Your task to perform on an android device: open app "Facebook Messenger" (install if not already installed) Image 0: 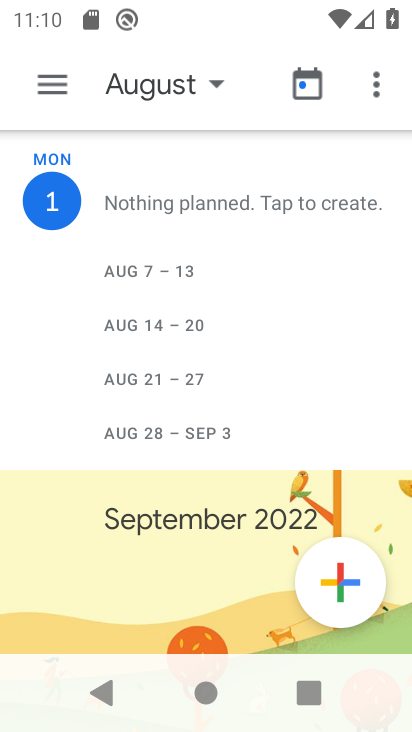
Step 0: press home button
Your task to perform on an android device: open app "Facebook Messenger" (install if not already installed) Image 1: 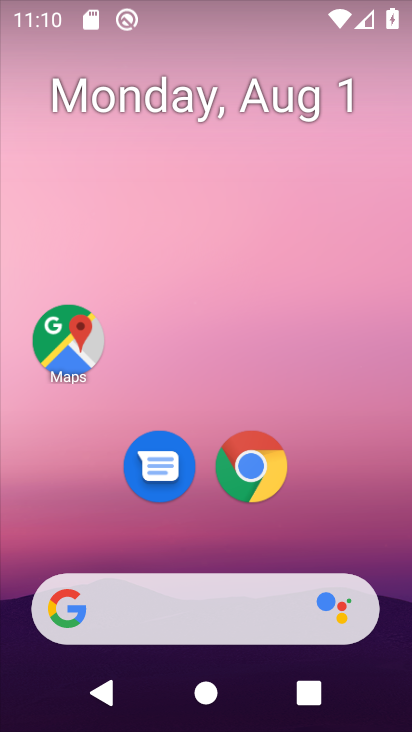
Step 1: drag from (237, 724) to (241, 14)
Your task to perform on an android device: open app "Facebook Messenger" (install if not already installed) Image 2: 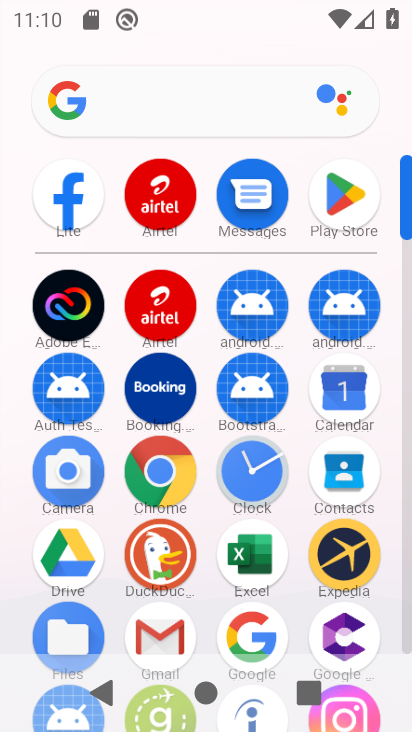
Step 2: click (345, 191)
Your task to perform on an android device: open app "Facebook Messenger" (install if not already installed) Image 3: 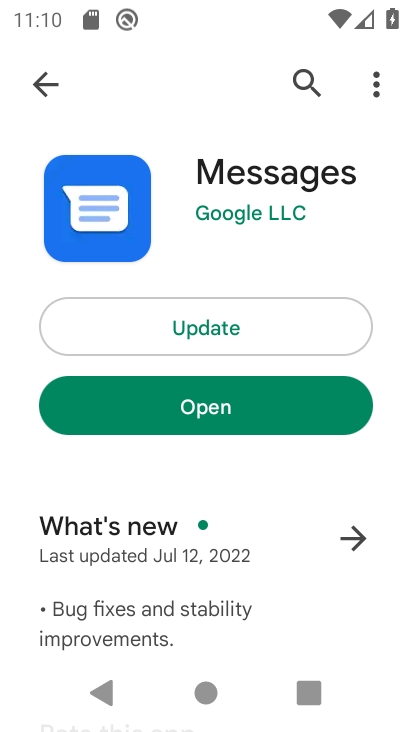
Step 3: click (305, 73)
Your task to perform on an android device: open app "Facebook Messenger" (install if not already installed) Image 4: 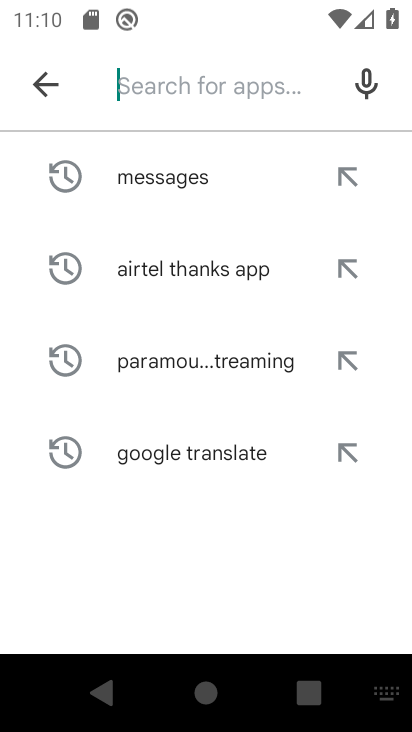
Step 4: type "Facebook Messenger"
Your task to perform on an android device: open app "Facebook Messenger" (install if not already installed) Image 5: 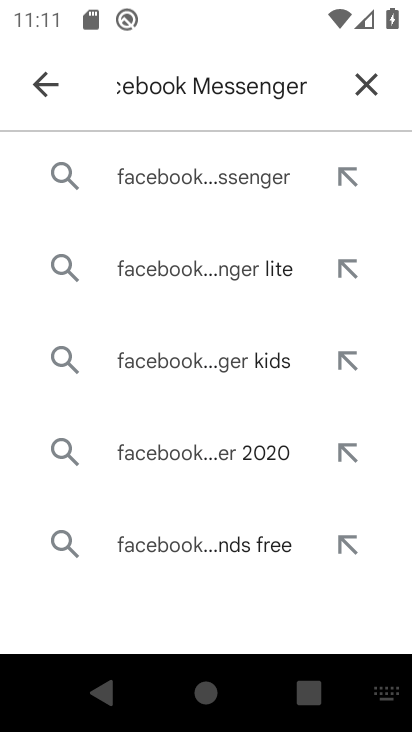
Step 5: click (169, 170)
Your task to perform on an android device: open app "Facebook Messenger" (install if not already installed) Image 6: 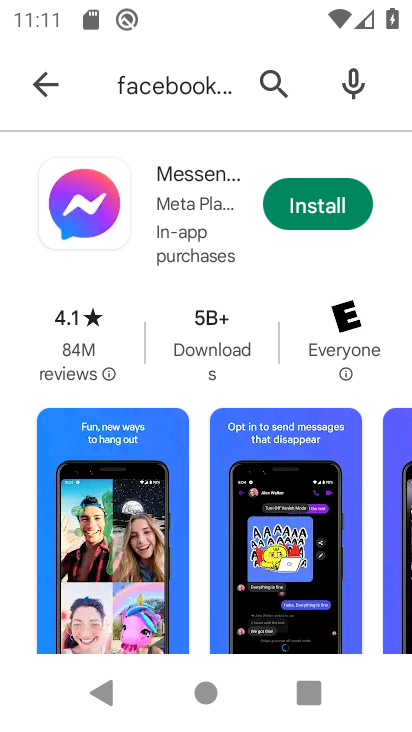
Step 6: click (330, 207)
Your task to perform on an android device: open app "Facebook Messenger" (install if not already installed) Image 7: 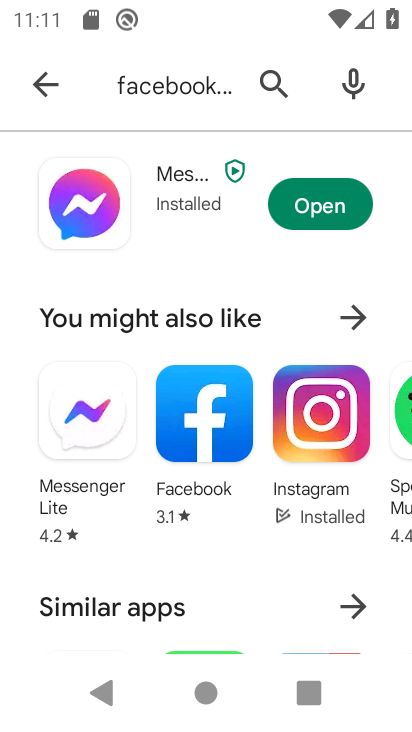
Step 7: click (319, 202)
Your task to perform on an android device: open app "Facebook Messenger" (install if not already installed) Image 8: 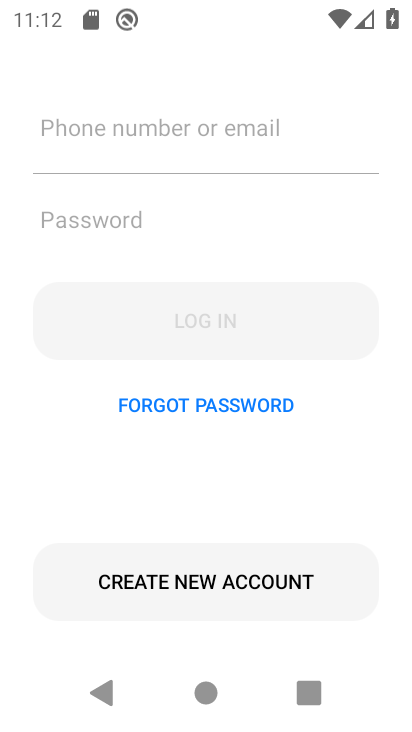
Step 8: task complete